Your task to perform on an android device: Go to location settings Image 0: 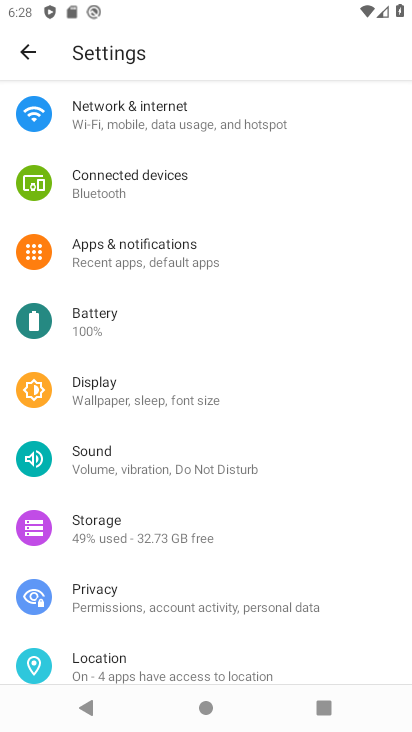
Step 0: drag from (205, 585) to (189, 282)
Your task to perform on an android device: Go to location settings Image 1: 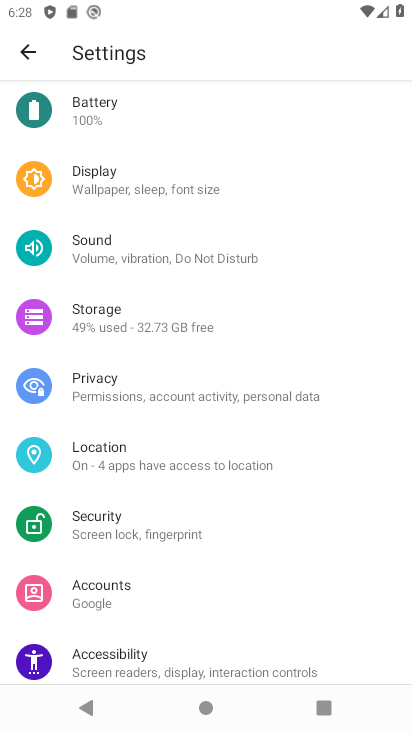
Step 1: click (147, 451)
Your task to perform on an android device: Go to location settings Image 2: 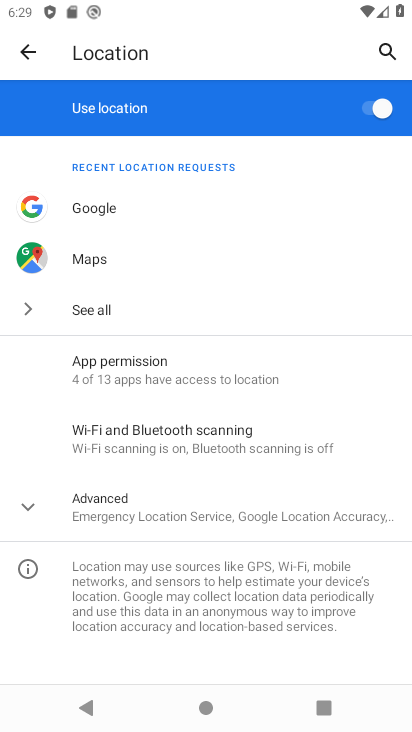
Step 2: task complete